Your task to perform on an android device: Go to calendar. Show me events next week Image 0: 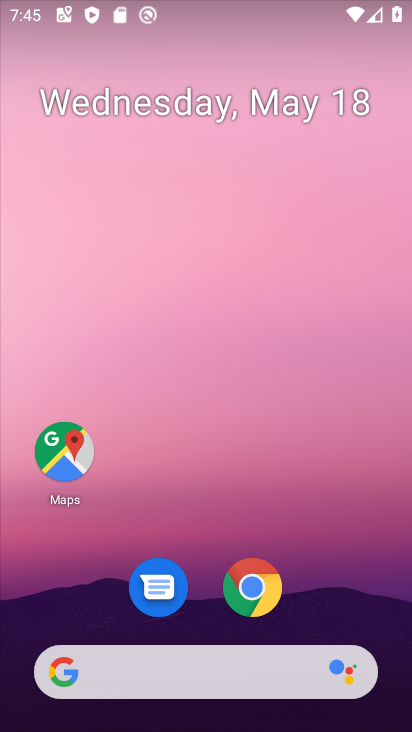
Step 0: click (177, 110)
Your task to perform on an android device: Go to calendar. Show me events next week Image 1: 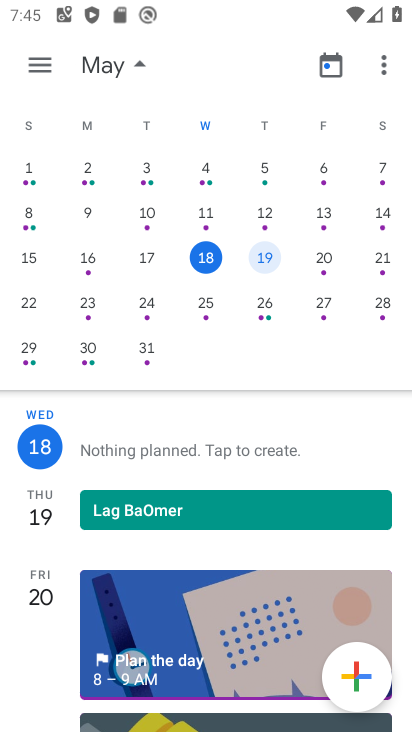
Step 1: task complete